Your task to perform on an android device: turn off notifications in google photos Image 0: 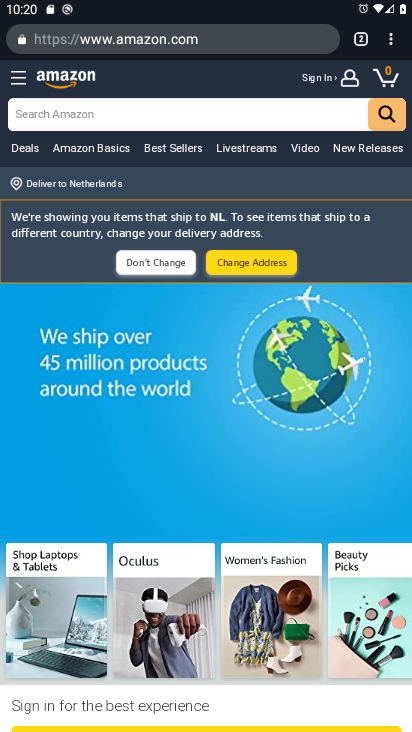
Step 0: press home button
Your task to perform on an android device: turn off notifications in google photos Image 1: 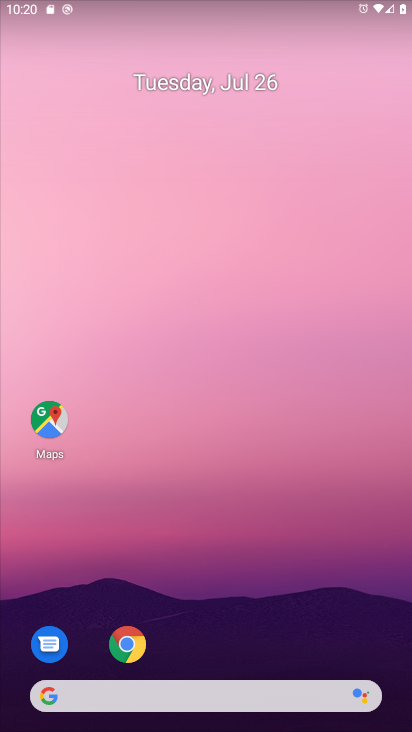
Step 1: drag from (216, 662) to (266, 270)
Your task to perform on an android device: turn off notifications in google photos Image 2: 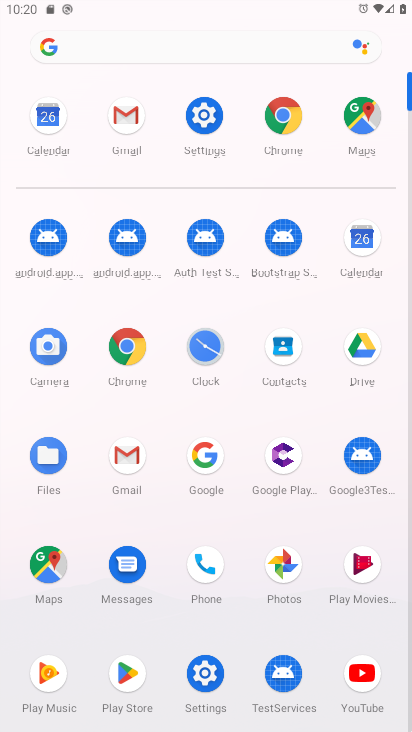
Step 2: click (293, 558)
Your task to perform on an android device: turn off notifications in google photos Image 3: 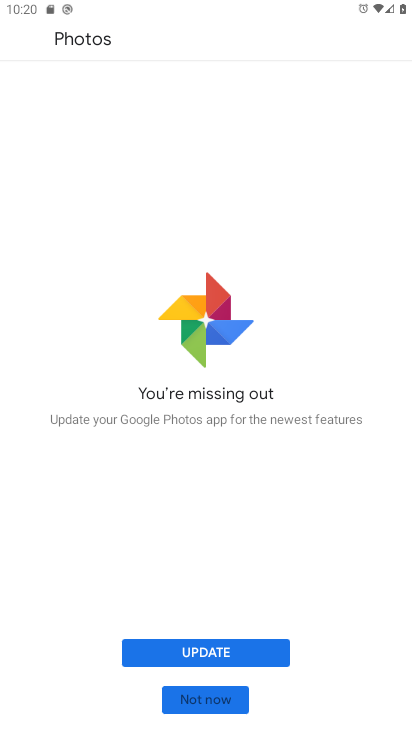
Step 3: click (322, 407)
Your task to perform on an android device: turn off notifications in google photos Image 4: 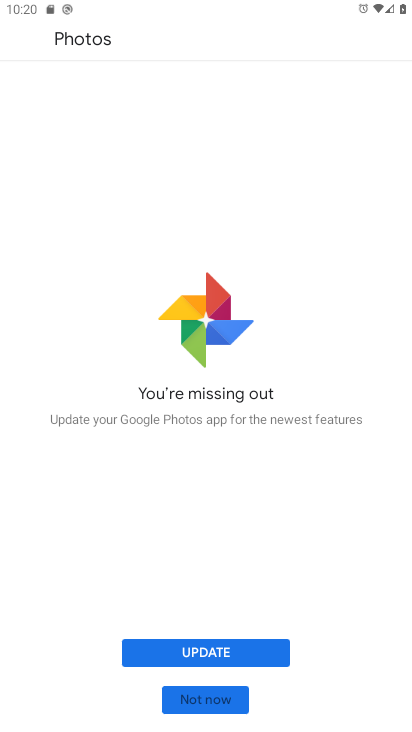
Step 4: click (206, 698)
Your task to perform on an android device: turn off notifications in google photos Image 5: 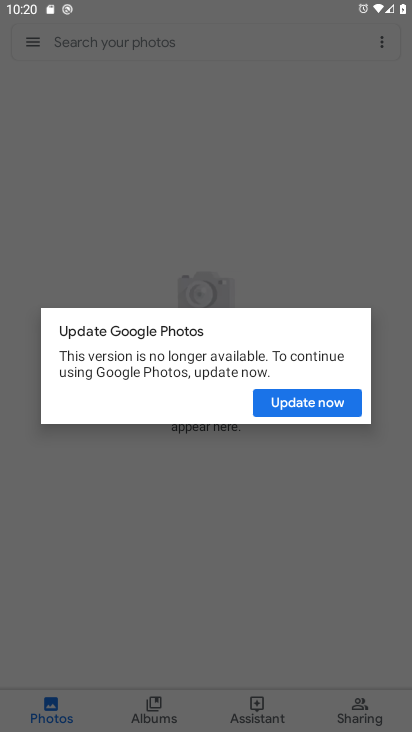
Step 5: click (311, 418)
Your task to perform on an android device: turn off notifications in google photos Image 6: 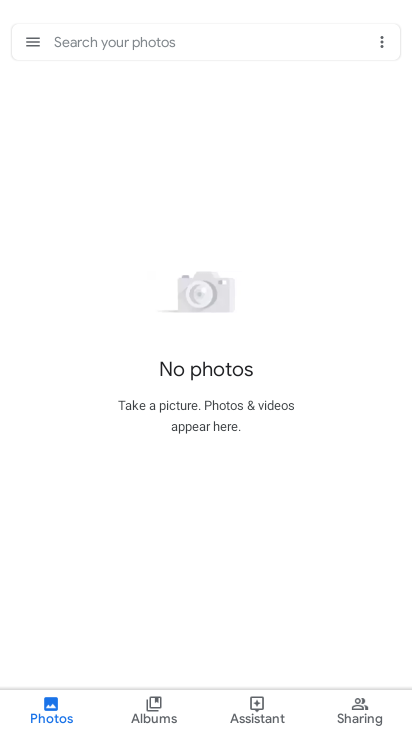
Step 6: press back button
Your task to perform on an android device: turn off notifications in google photos Image 7: 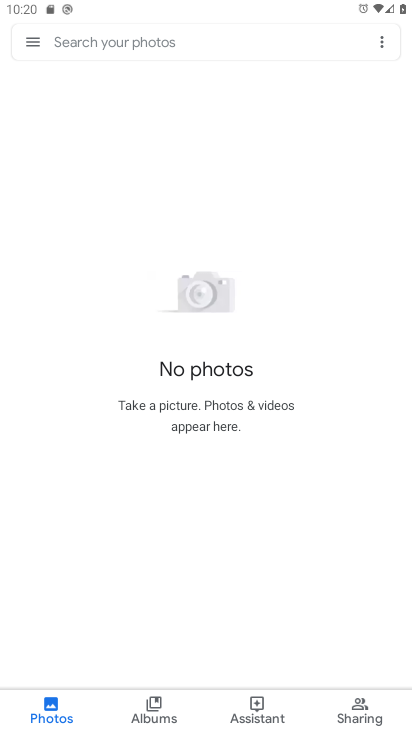
Step 7: click (26, 37)
Your task to perform on an android device: turn off notifications in google photos Image 8: 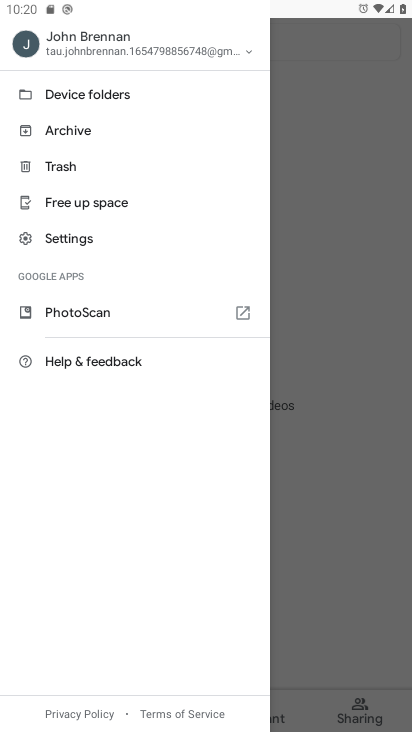
Step 8: click (77, 239)
Your task to perform on an android device: turn off notifications in google photos Image 9: 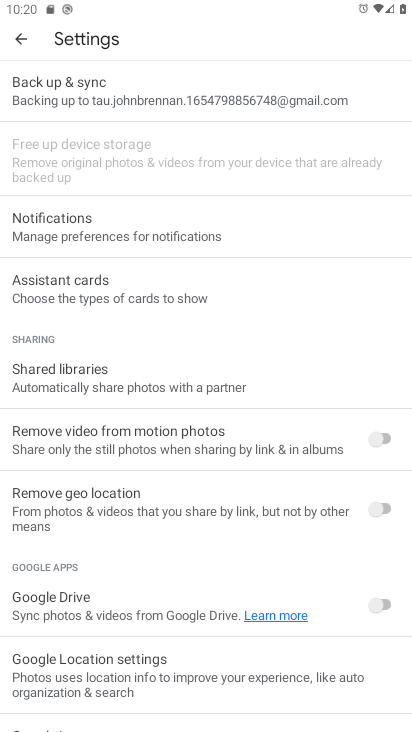
Step 9: click (108, 237)
Your task to perform on an android device: turn off notifications in google photos Image 10: 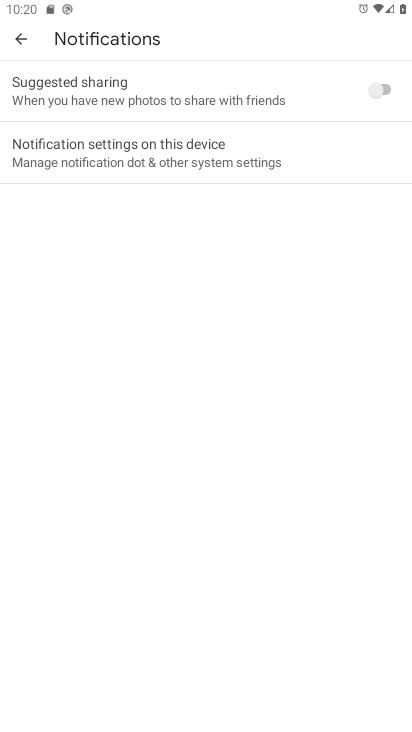
Step 10: click (249, 144)
Your task to perform on an android device: turn off notifications in google photos Image 11: 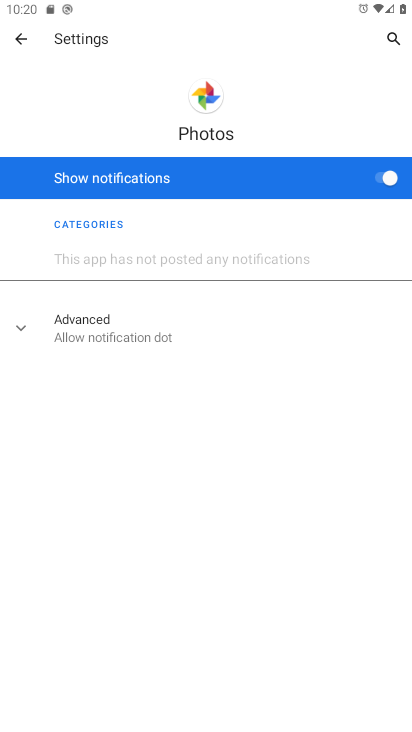
Step 11: click (349, 169)
Your task to perform on an android device: turn off notifications in google photos Image 12: 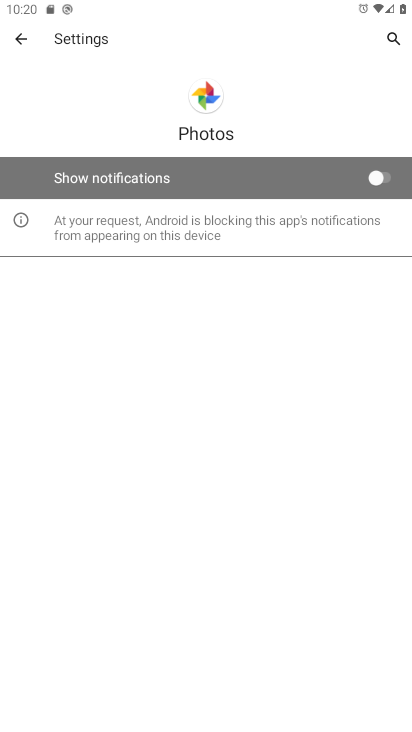
Step 12: task complete